Your task to perform on an android device: open app "Google Play Games" (install if not already installed) Image 0: 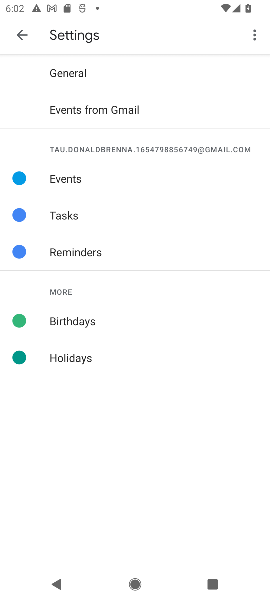
Step 0: press home button
Your task to perform on an android device: open app "Google Play Games" (install if not already installed) Image 1: 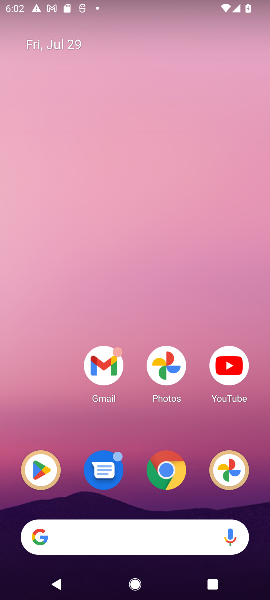
Step 1: drag from (195, 452) to (214, 11)
Your task to perform on an android device: open app "Google Play Games" (install if not already installed) Image 2: 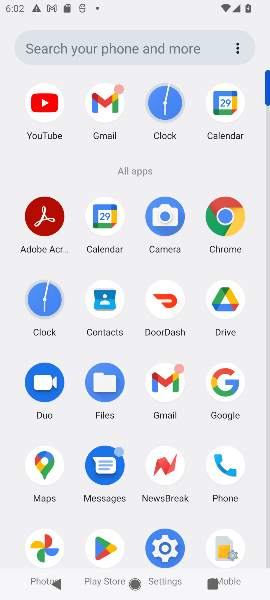
Step 2: click (105, 540)
Your task to perform on an android device: open app "Google Play Games" (install if not already installed) Image 3: 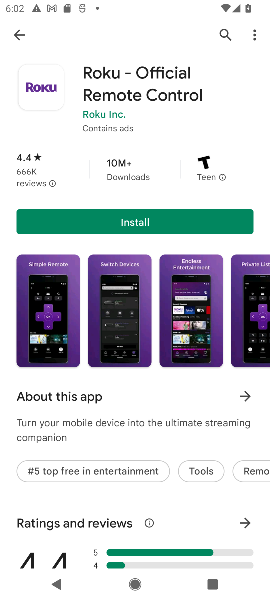
Step 3: click (234, 26)
Your task to perform on an android device: open app "Google Play Games" (install if not already installed) Image 4: 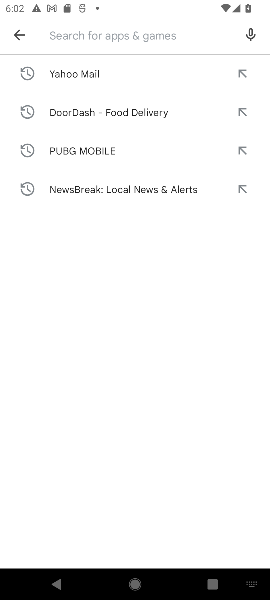
Step 4: type "Google Play Games"
Your task to perform on an android device: open app "Google Play Games" (install if not already installed) Image 5: 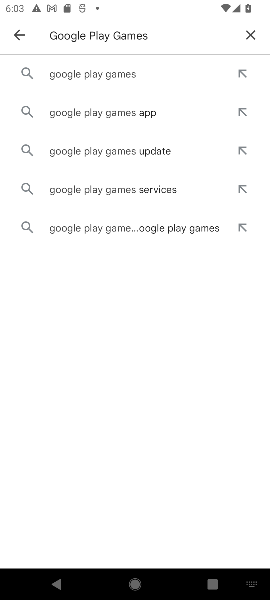
Step 5: press enter
Your task to perform on an android device: open app "Google Play Games" (install if not already installed) Image 6: 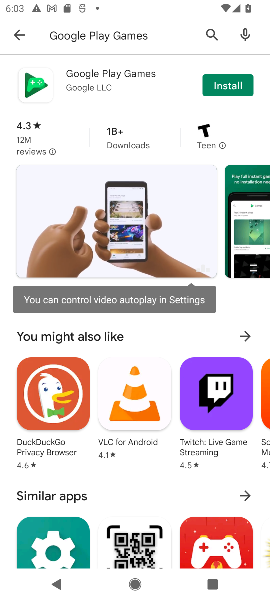
Step 6: click (216, 77)
Your task to perform on an android device: open app "Google Play Games" (install if not already installed) Image 7: 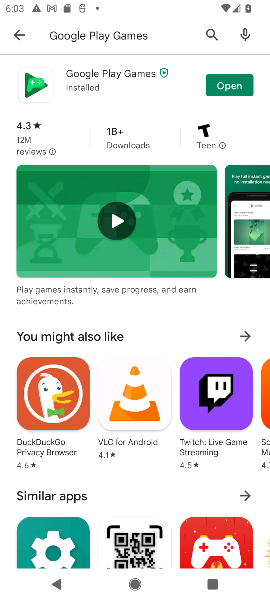
Step 7: click (232, 82)
Your task to perform on an android device: open app "Google Play Games" (install if not already installed) Image 8: 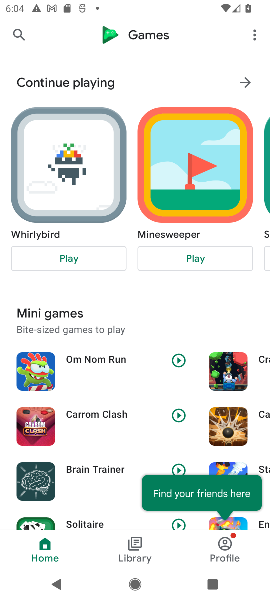
Step 8: task complete